Your task to perform on an android device: Open Google Chrome and click the shortcut for Amazon.com Image 0: 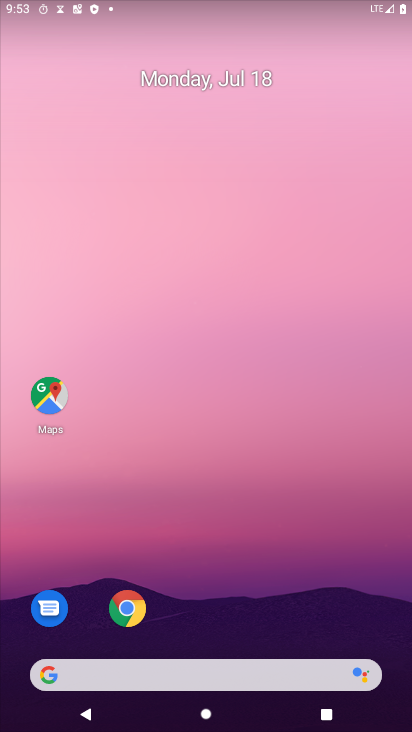
Step 0: click (332, 592)
Your task to perform on an android device: Open Google Chrome and click the shortcut for Amazon.com Image 1: 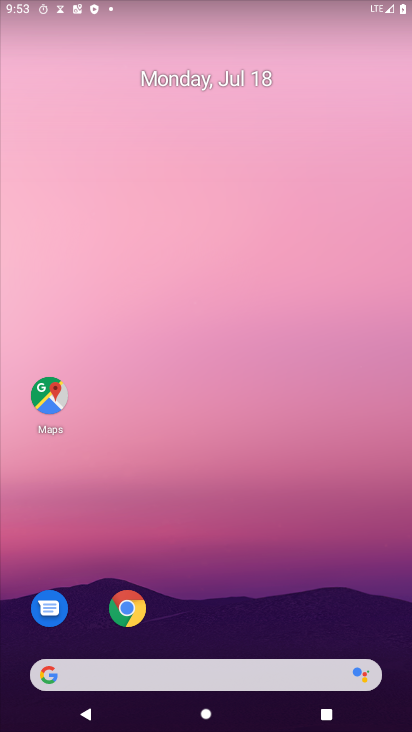
Step 1: click (124, 614)
Your task to perform on an android device: Open Google Chrome and click the shortcut for Amazon.com Image 2: 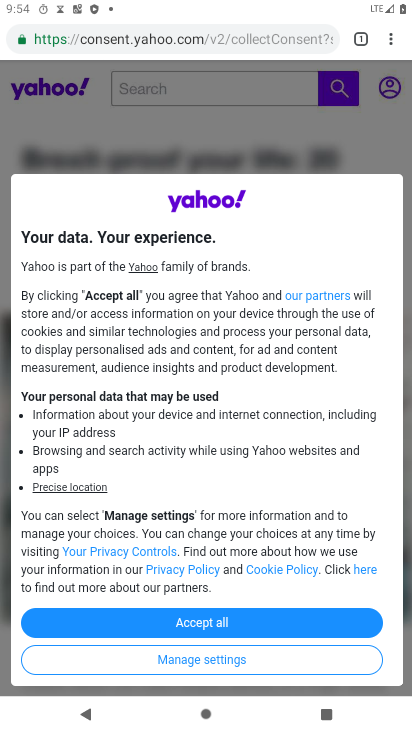
Step 2: click (361, 42)
Your task to perform on an android device: Open Google Chrome and click the shortcut for Amazon.com Image 3: 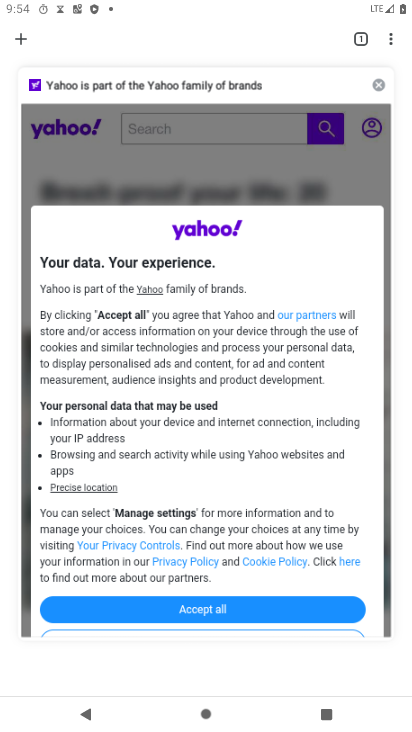
Step 3: click (382, 84)
Your task to perform on an android device: Open Google Chrome and click the shortcut for Amazon.com Image 4: 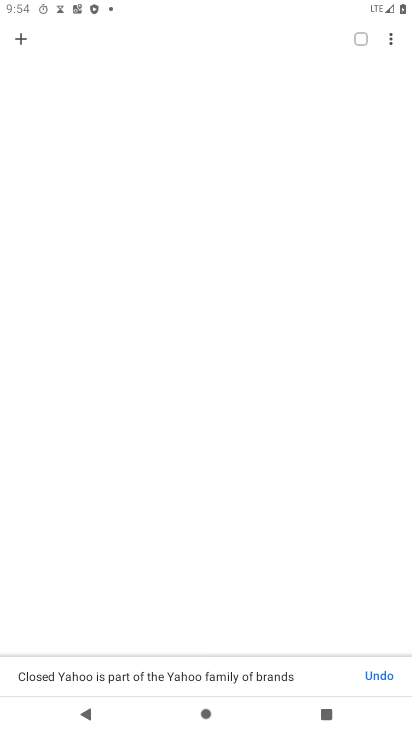
Step 4: click (20, 42)
Your task to perform on an android device: Open Google Chrome and click the shortcut for Amazon.com Image 5: 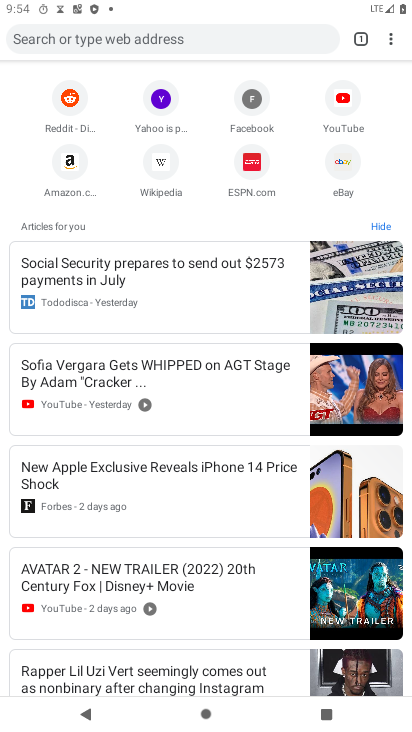
Step 5: click (70, 165)
Your task to perform on an android device: Open Google Chrome and click the shortcut for Amazon.com Image 6: 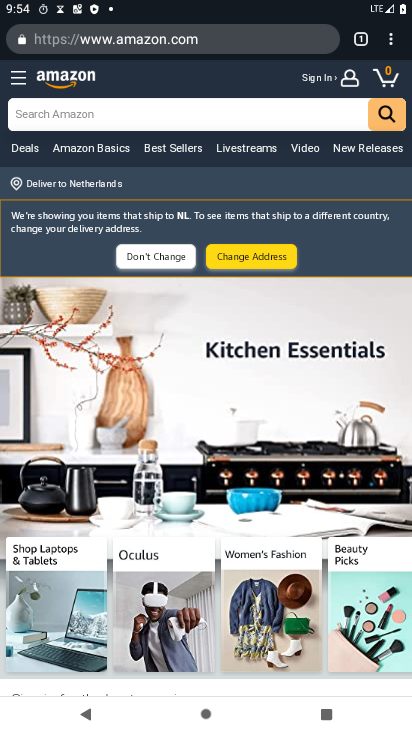
Step 6: task complete